Your task to perform on an android device: turn off airplane mode Image 0: 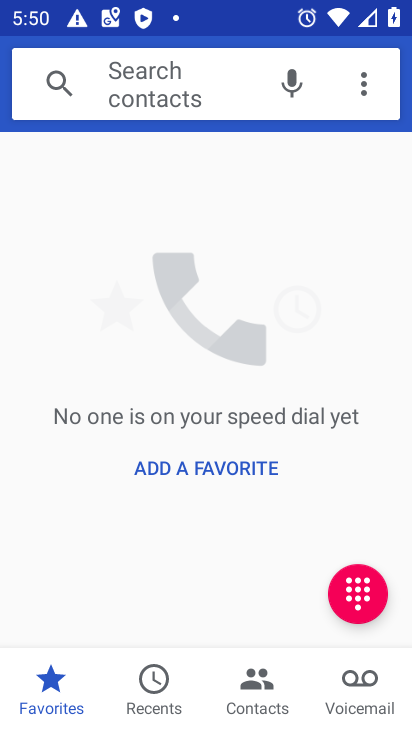
Step 0: press home button
Your task to perform on an android device: turn off airplane mode Image 1: 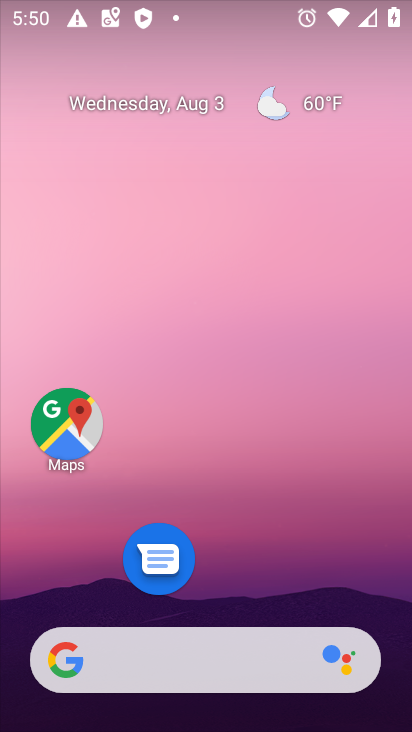
Step 1: drag from (208, 645) to (211, 276)
Your task to perform on an android device: turn off airplane mode Image 2: 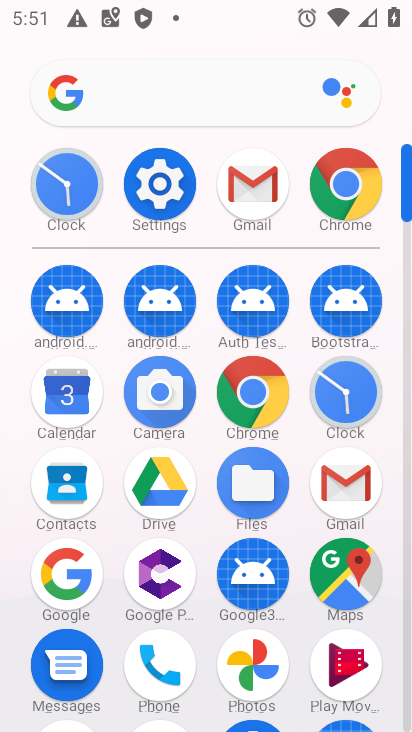
Step 2: click (171, 192)
Your task to perform on an android device: turn off airplane mode Image 3: 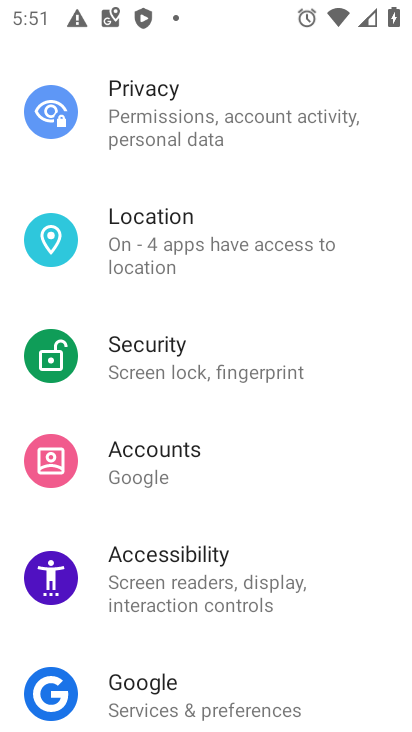
Step 3: drag from (172, 85) to (163, 475)
Your task to perform on an android device: turn off airplane mode Image 4: 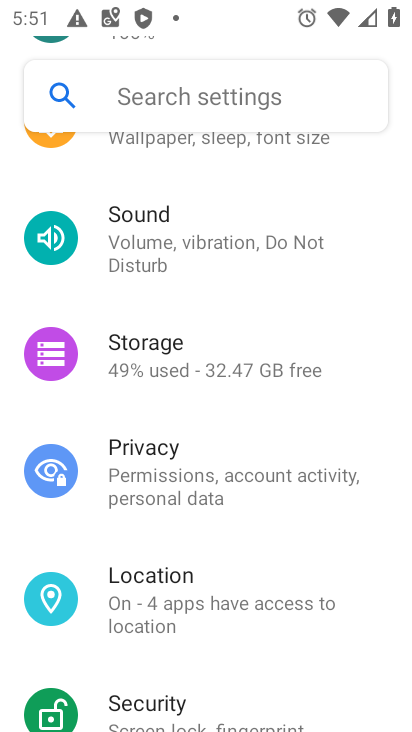
Step 4: drag from (189, 176) to (163, 580)
Your task to perform on an android device: turn off airplane mode Image 5: 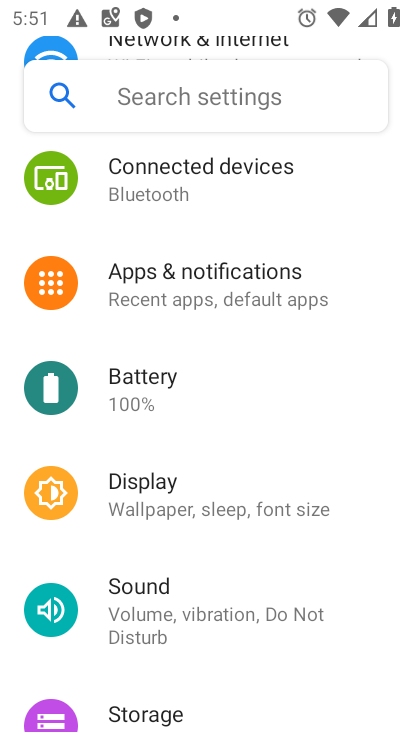
Step 5: drag from (160, 141) to (183, 444)
Your task to perform on an android device: turn off airplane mode Image 6: 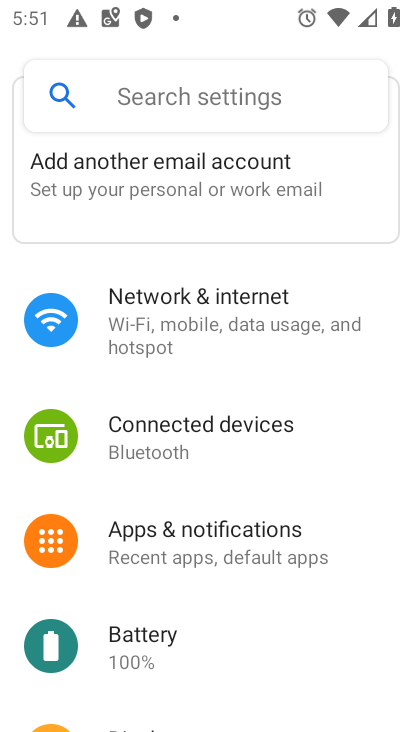
Step 6: click (178, 331)
Your task to perform on an android device: turn off airplane mode Image 7: 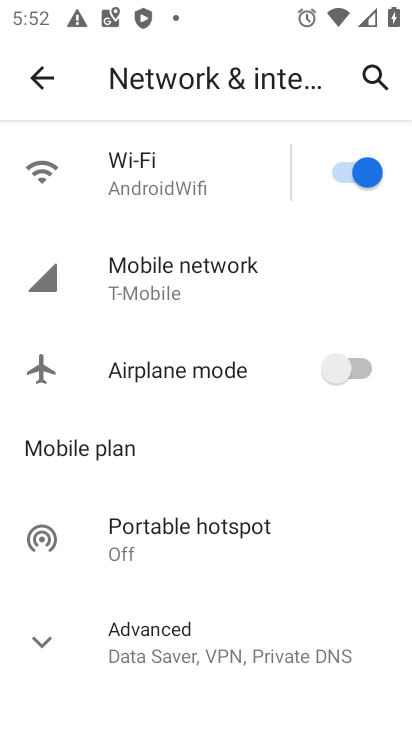
Step 7: task complete